Your task to perform on an android device: Open the phone app and click the voicemail tab. Image 0: 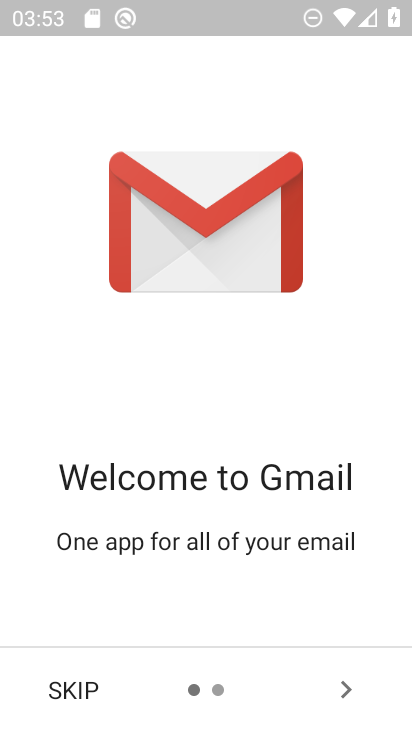
Step 0: press home button
Your task to perform on an android device: Open the phone app and click the voicemail tab. Image 1: 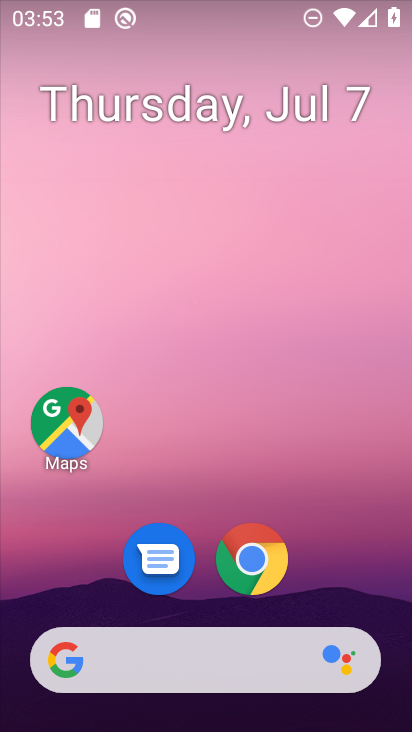
Step 1: drag from (357, 576) to (354, 161)
Your task to perform on an android device: Open the phone app and click the voicemail tab. Image 2: 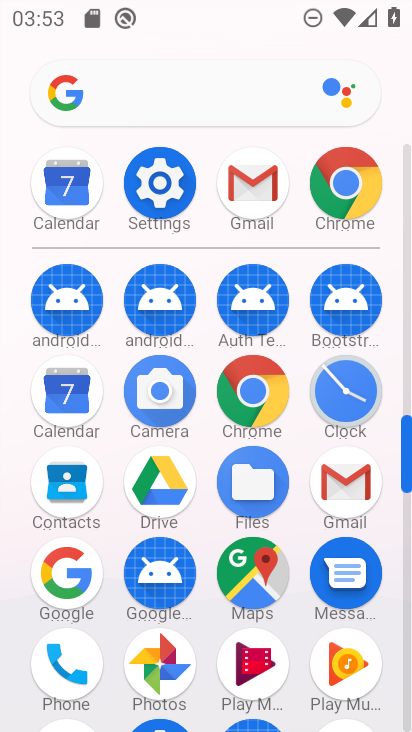
Step 2: drag from (393, 373) to (389, 172)
Your task to perform on an android device: Open the phone app and click the voicemail tab. Image 3: 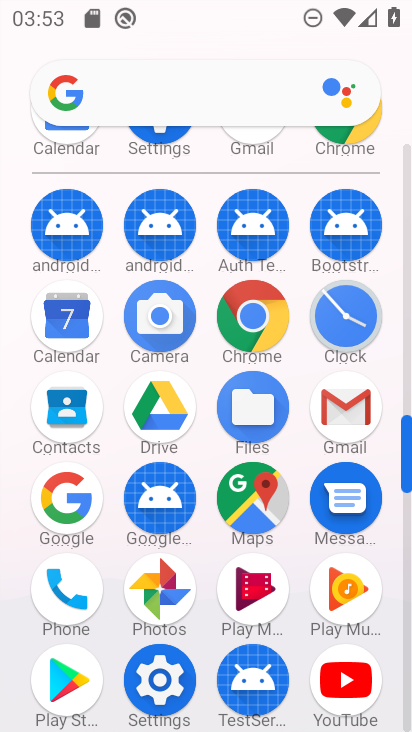
Step 3: click (81, 580)
Your task to perform on an android device: Open the phone app and click the voicemail tab. Image 4: 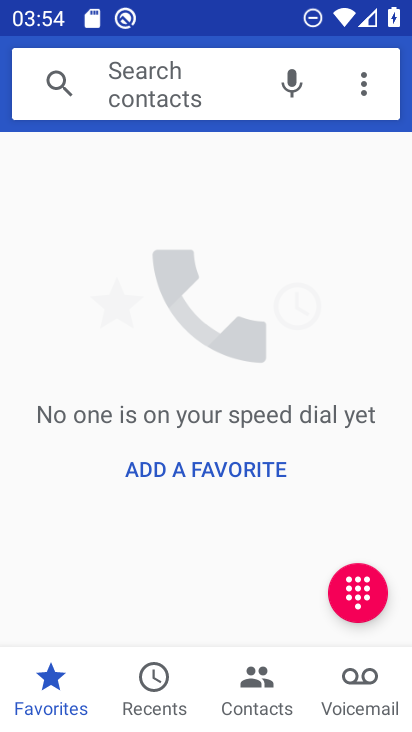
Step 4: click (363, 688)
Your task to perform on an android device: Open the phone app and click the voicemail tab. Image 5: 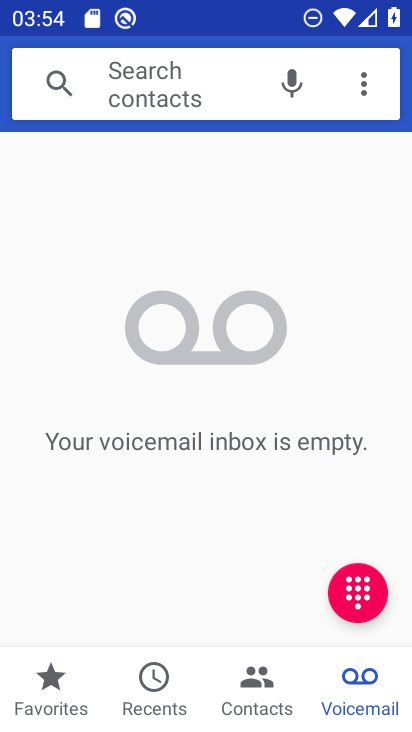
Step 5: task complete